Your task to perform on an android device: Go to Maps Image 0: 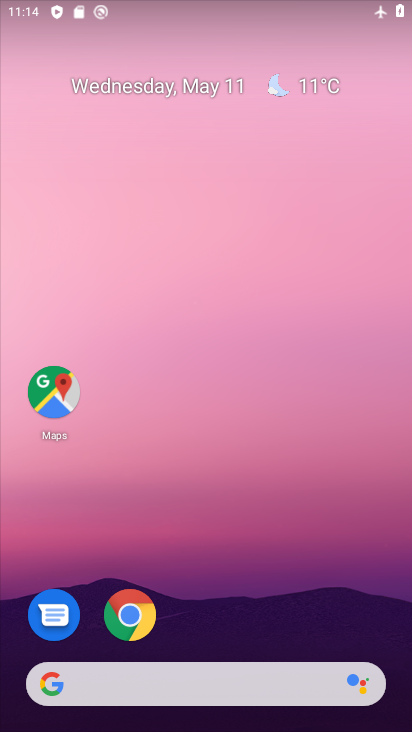
Step 0: click (60, 383)
Your task to perform on an android device: Go to Maps Image 1: 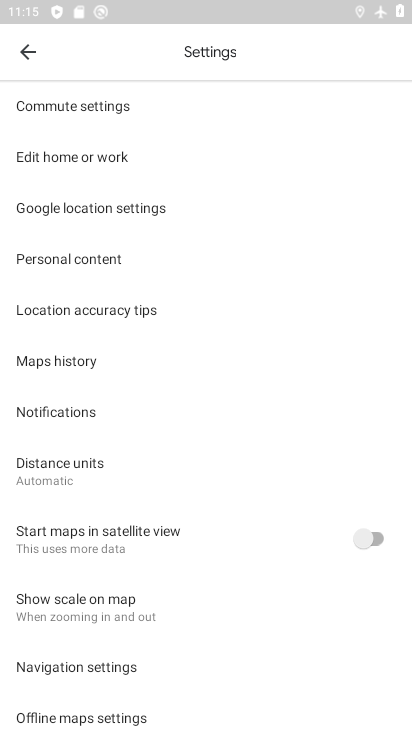
Step 1: task complete